Your task to perform on an android device: Open maps Image 0: 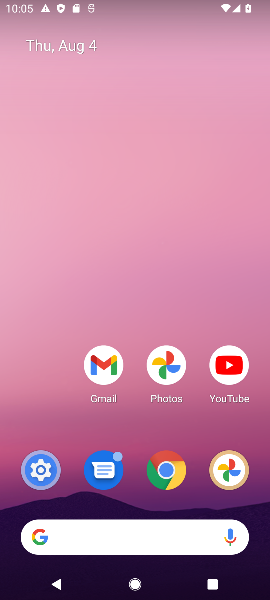
Step 0: drag from (142, 426) to (9, 261)
Your task to perform on an android device: Open maps Image 1: 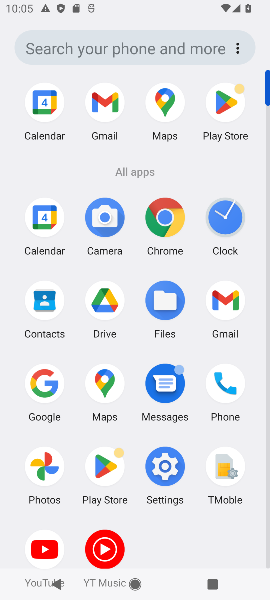
Step 1: click (105, 377)
Your task to perform on an android device: Open maps Image 2: 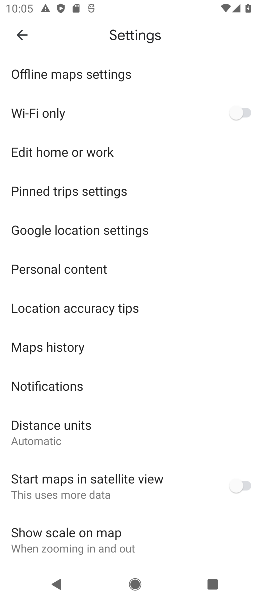
Step 2: click (18, 30)
Your task to perform on an android device: Open maps Image 3: 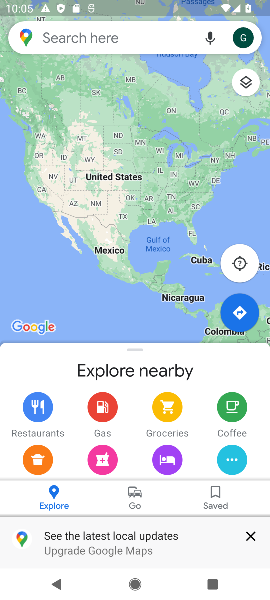
Step 3: task complete